Your task to perform on an android device: open a bookmark in the chrome app Image 0: 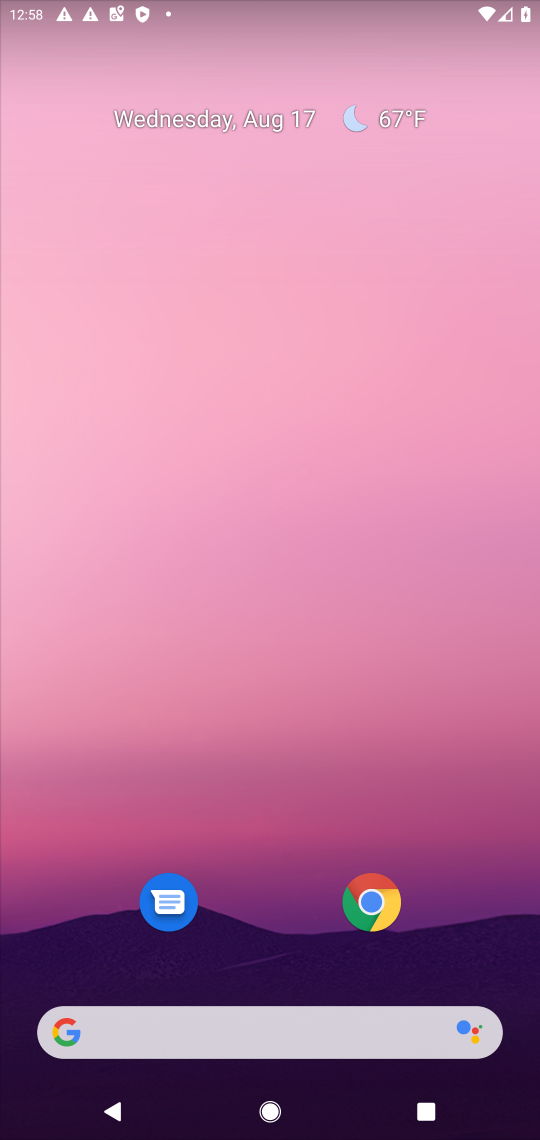
Step 0: drag from (249, 920) to (297, 5)
Your task to perform on an android device: open a bookmark in the chrome app Image 1: 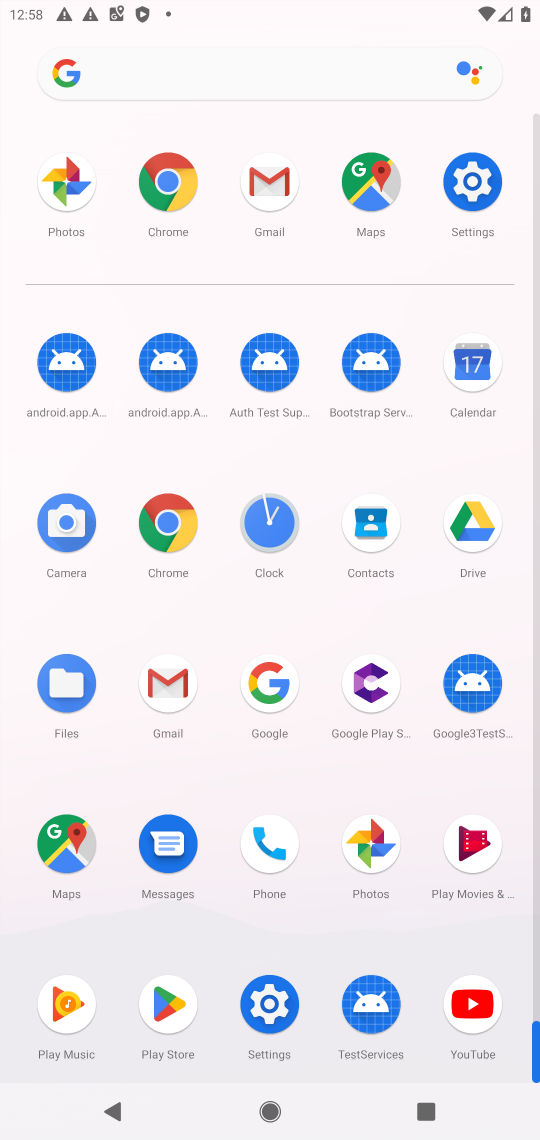
Step 1: click (171, 516)
Your task to perform on an android device: open a bookmark in the chrome app Image 2: 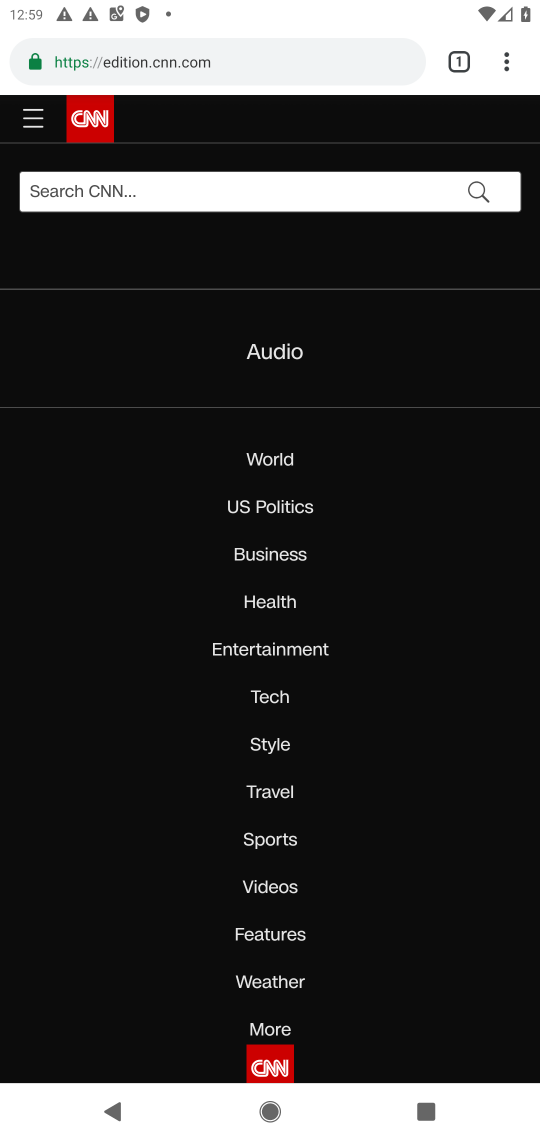
Step 2: click (503, 65)
Your task to perform on an android device: open a bookmark in the chrome app Image 3: 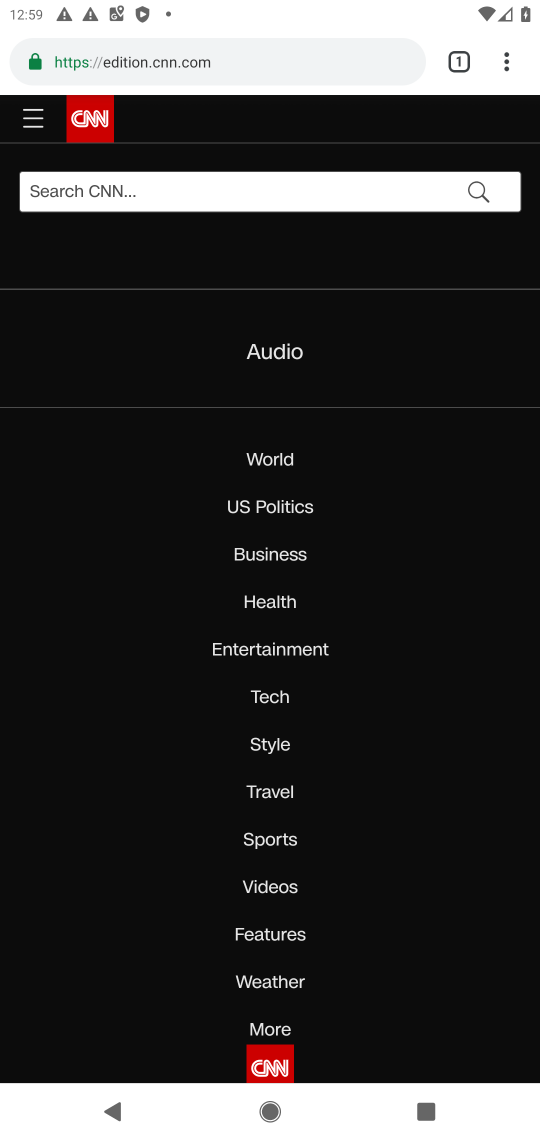
Step 3: click (503, 70)
Your task to perform on an android device: open a bookmark in the chrome app Image 4: 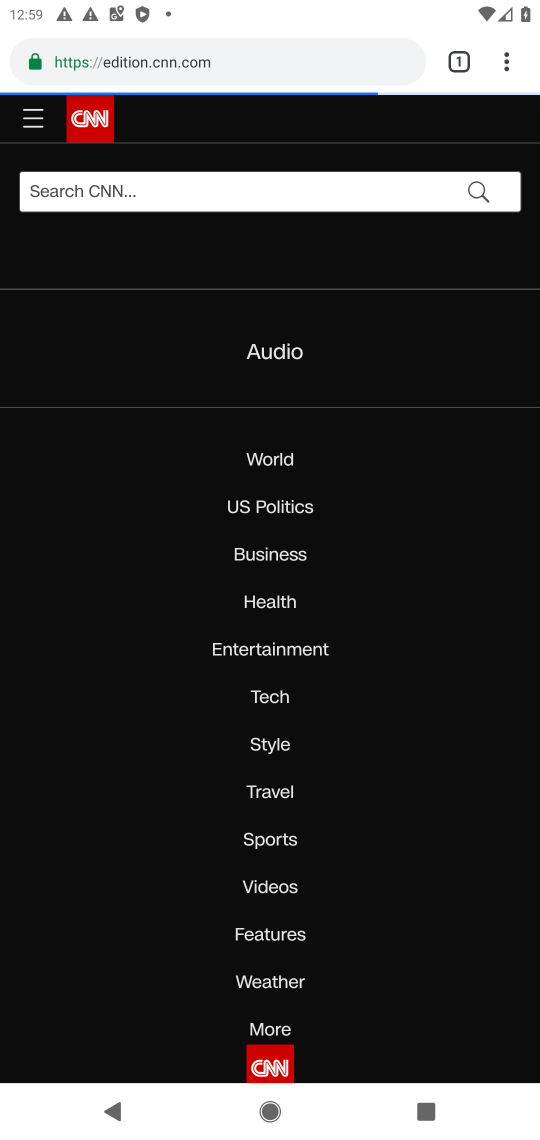
Step 4: click (505, 71)
Your task to perform on an android device: open a bookmark in the chrome app Image 5: 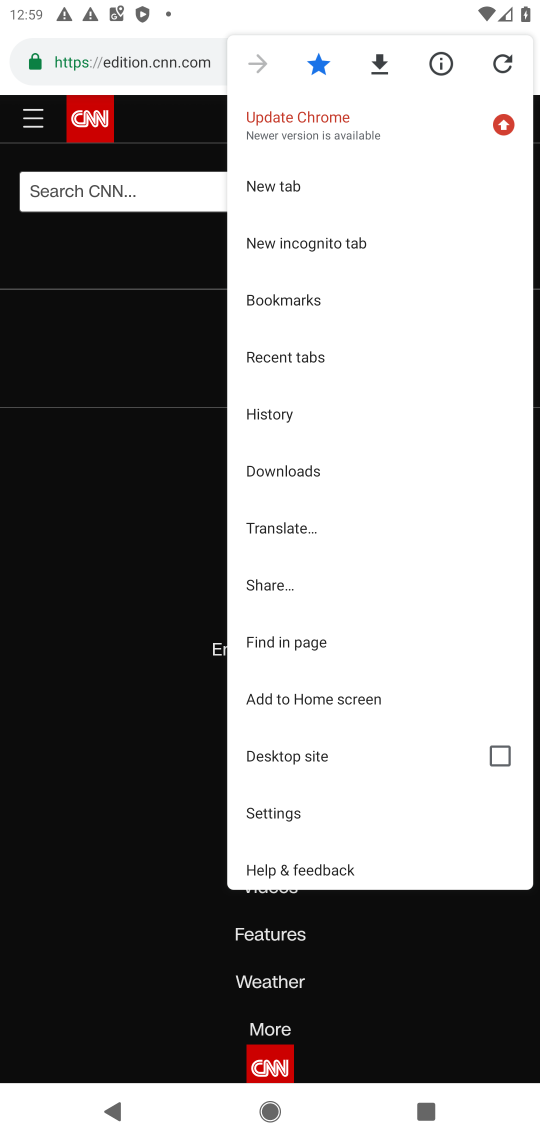
Step 5: click (310, 302)
Your task to perform on an android device: open a bookmark in the chrome app Image 6: 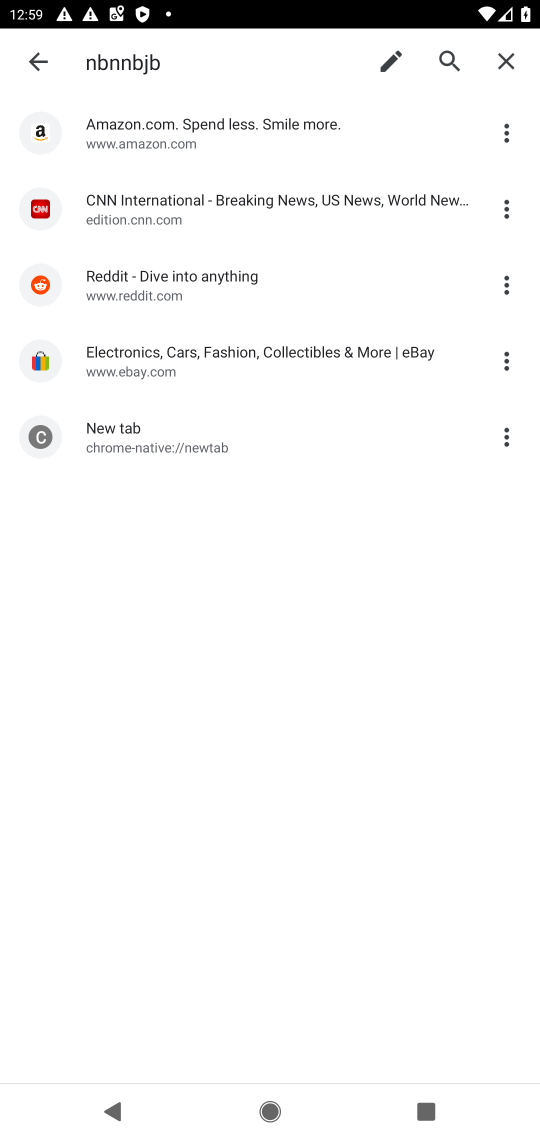
Step 6: click (230, 283)
Your task to perform on an android device: open a bookmark in the chrome app Image 7: 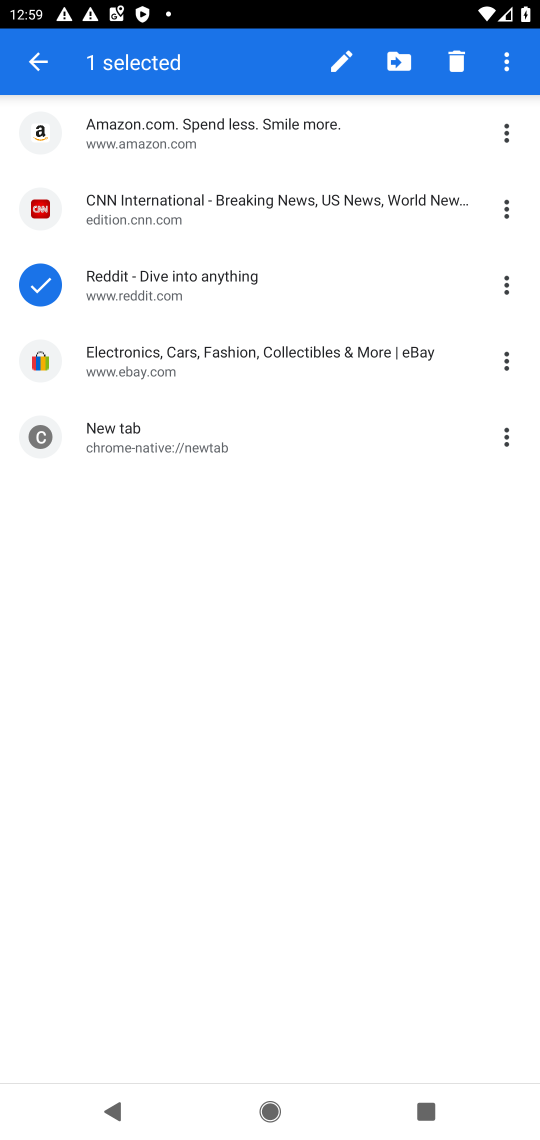
Step 7: click (229, 282)
Your task to perform on an android device: open a bookmark in the chrome app Image 8: 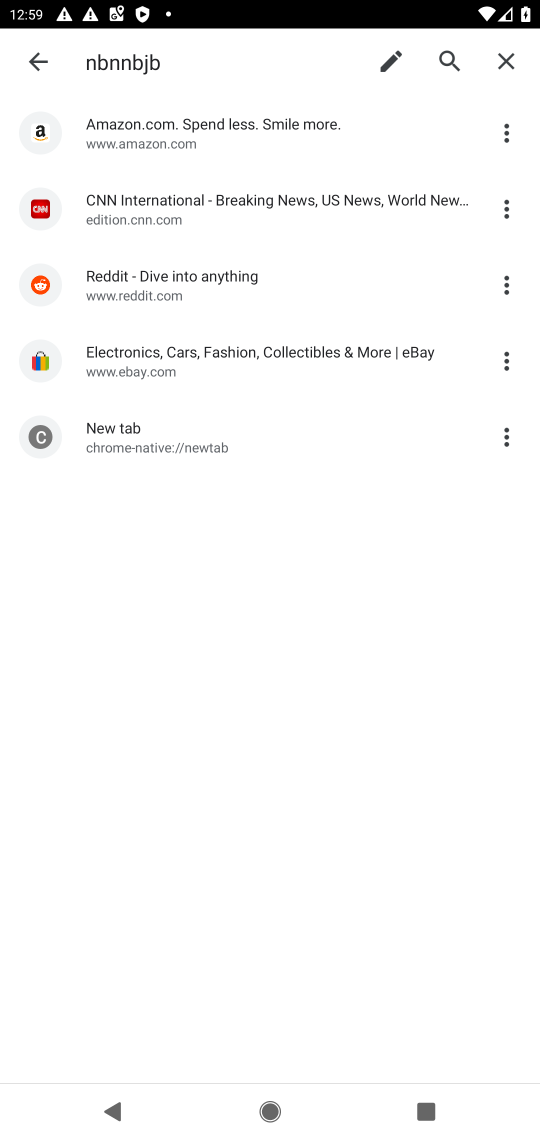
Step 8: click (229, 282)
Your task to perform on an android device: open a bookmark in the chrome app Image 9: 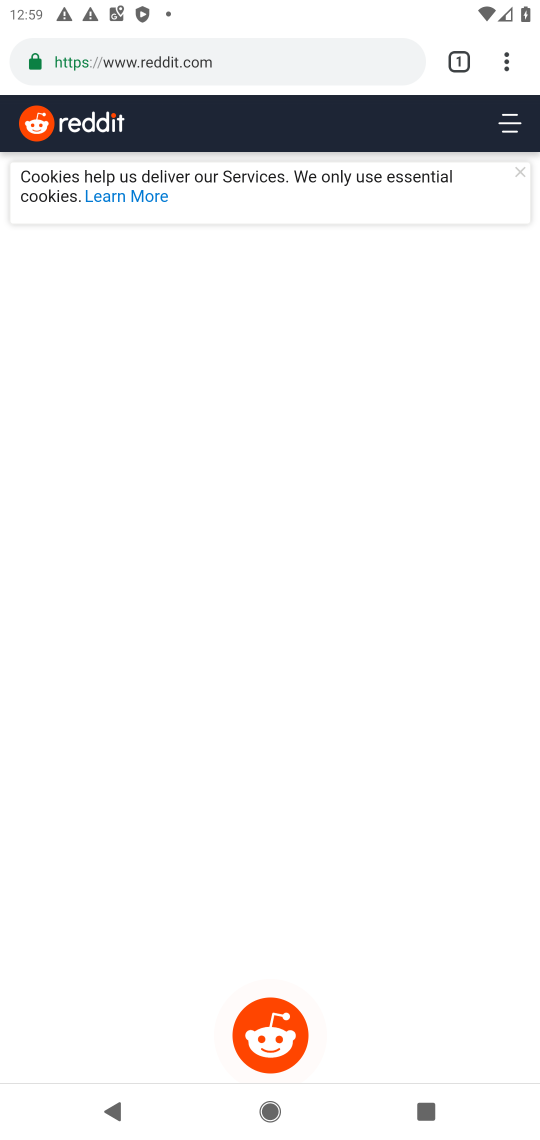
Step 9: task complete